Your task to perform on an android device: What's on my calendar today? Image 0: 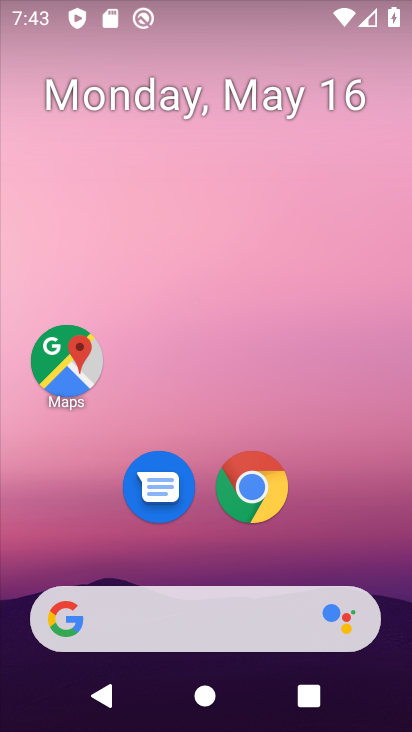
Step 0: drag from (330, 529) to (312, 126)
Your task to perform on an android device: What's on my calendar today? Image 1: 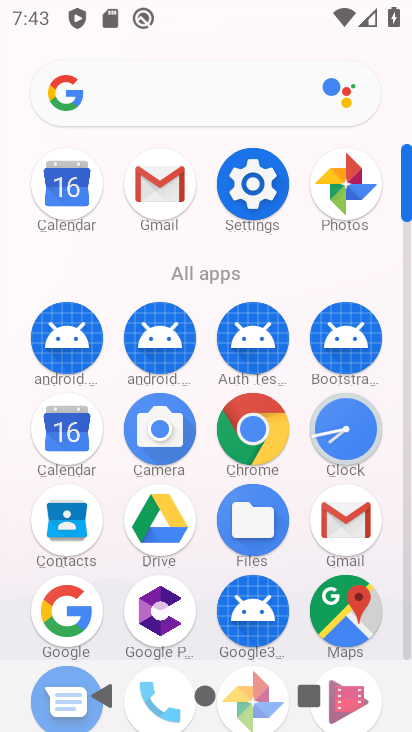
Step 1: click (76, 179)
Your task to perform on an android device: What's on my calendar today? Image 2: 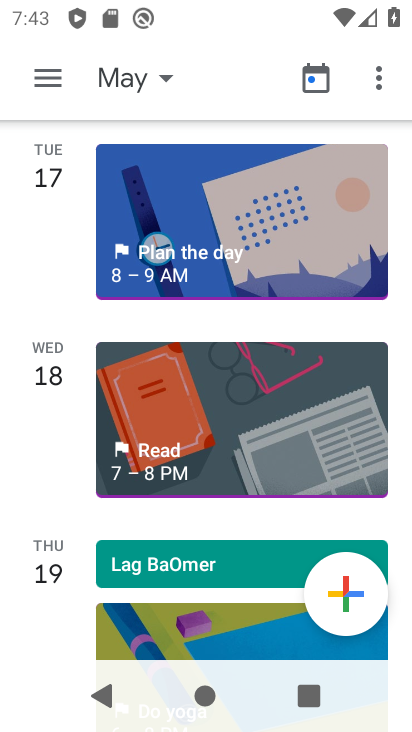
Step 2: drag from (188, 232) to (141, 482)
Your task to perform on an android device: What's on my calendar today? Image 3: 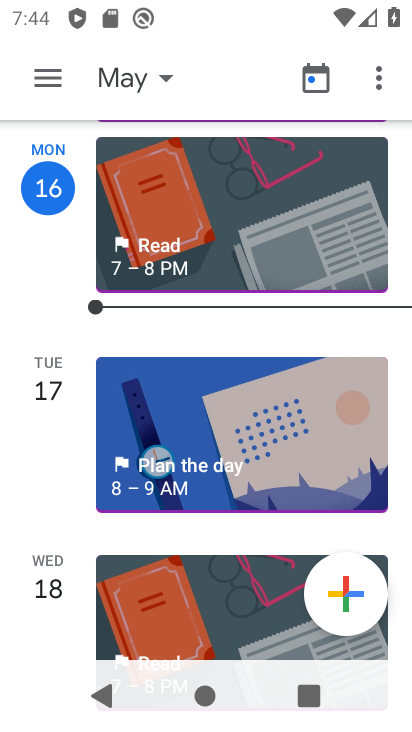
Step 3: click (220, 430)
Your task to perform on an android device: What's on my calendar today? Image 4: 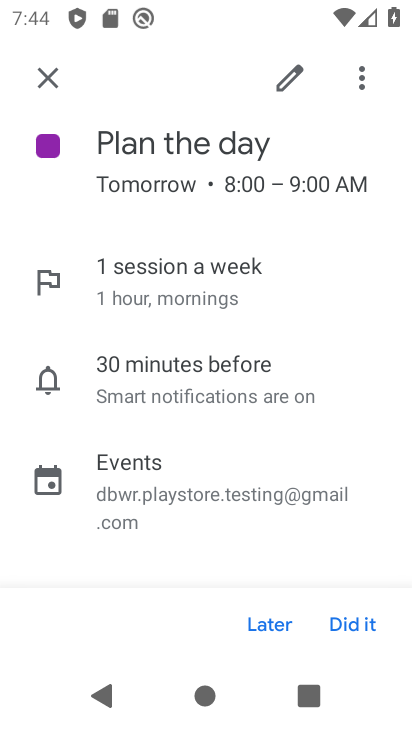
Step 4: click (42, 63)
Your task to perform on an android device: What's on my calendar today? Image 5: 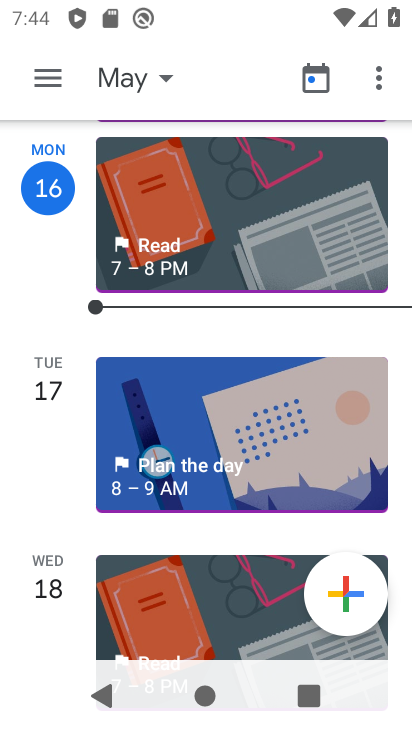
Step 5: click (42, 66)
Your task to perform on an android device: What's on my calendar today? Image 6: 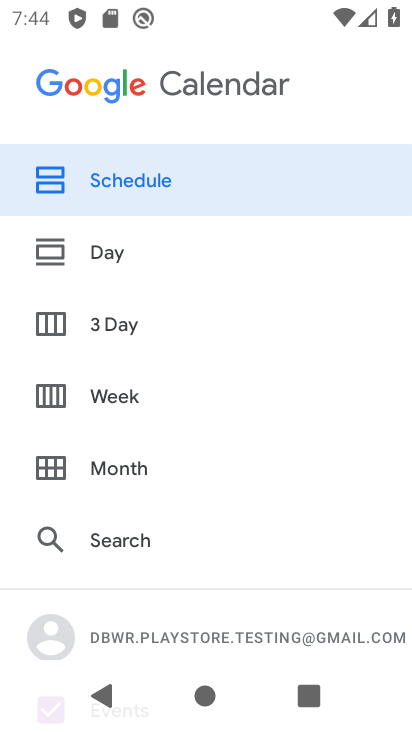
Step 6: click (71, 241)
Your task to perform on an android device: What's on my calendar today? Image 7: 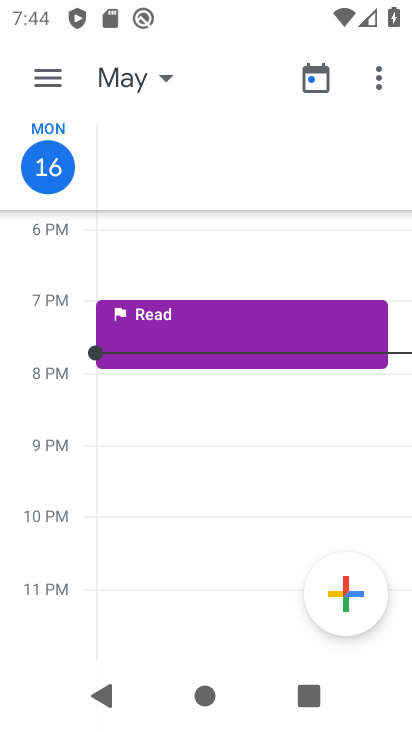
Step 7: task complete